Your task to perform on an android device: Go to eBay Image 0: 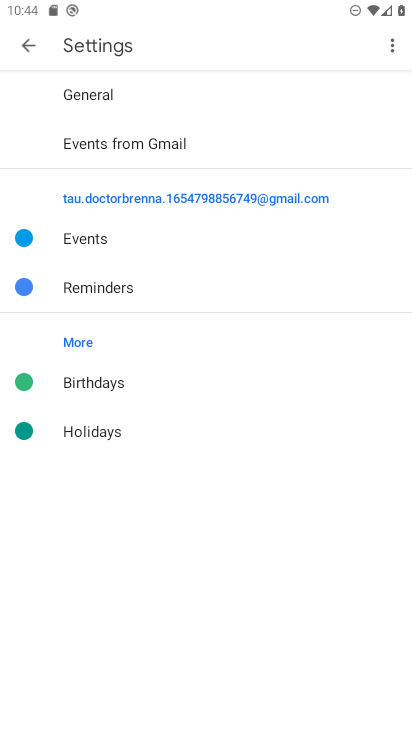
Step 0: press home button
Your task to perform on an android device: Go to eBay Image 1: 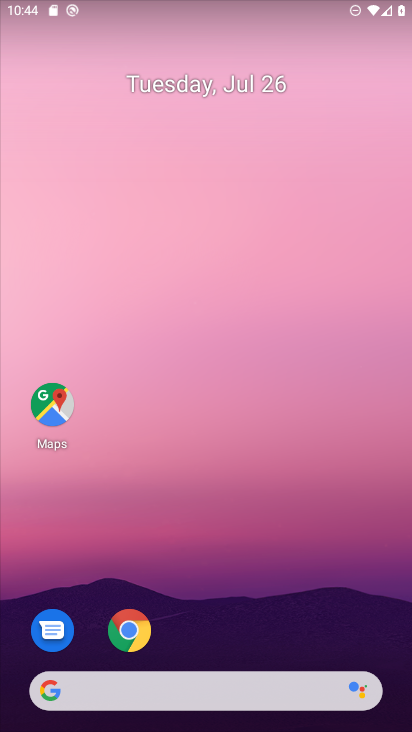
Step 1: click (134, 632)
Your task to perform on an android device: Go to eBay Image 2: 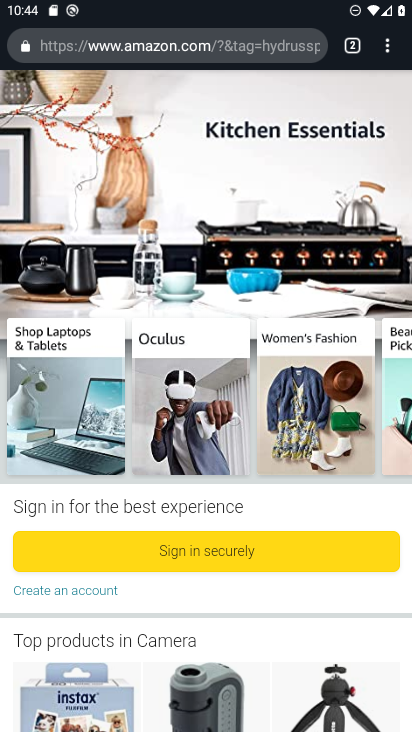
Step 2: click (309, 32)
Your task to perform on an android device: Go to eBay Image 3: 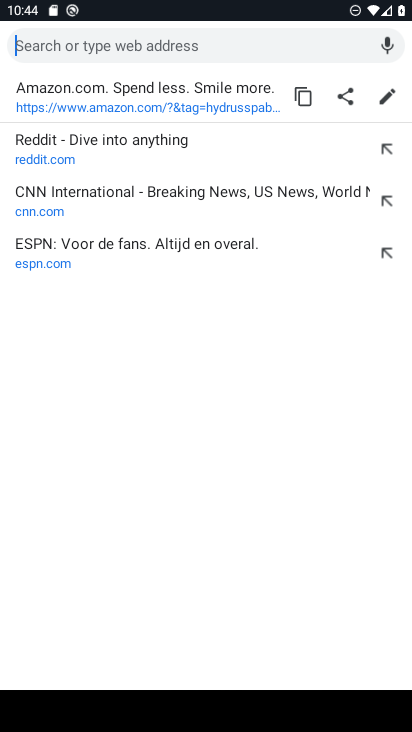
Step 3: type "eBay"
Your task to perform on an android device: Go to eBay Image 4: 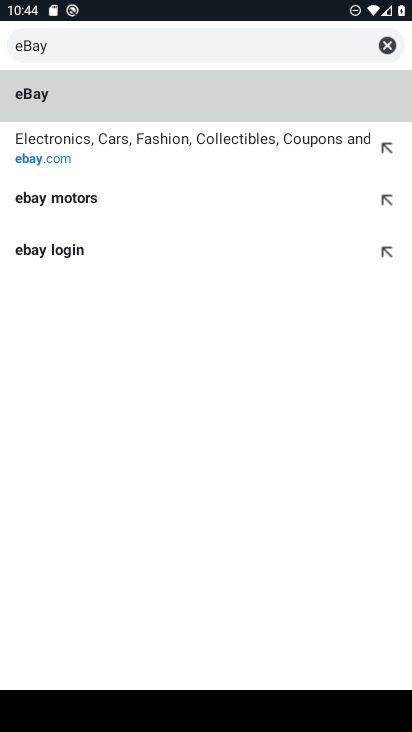
Step 4: click (39, 85)
Your task to perform on an android device: Go to eBay Image 5: 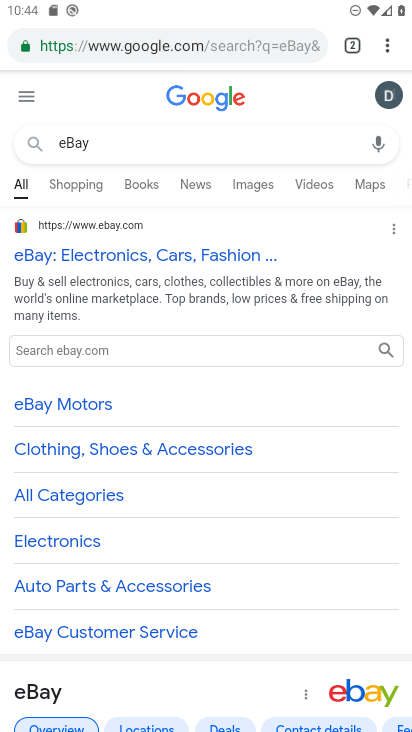
Step 5: click (96, 252)
Your task to perform on an android device: Go to eBay Image 6: 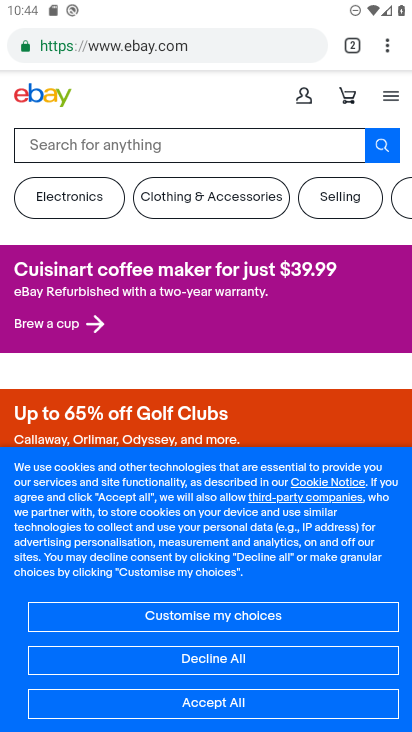
Step 6: task complete